Your task to perform on an android device: Open Google Maps Image 0: 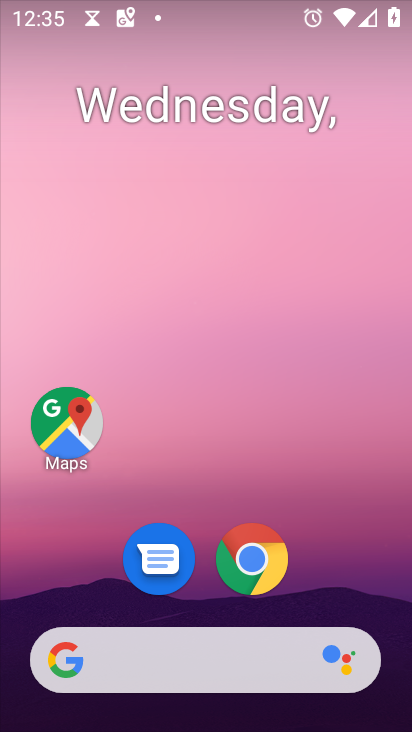
Step 0: drag from (352, 607) to (338, 11)
Your task to perform on an android device: Open Google Maps Image 1: 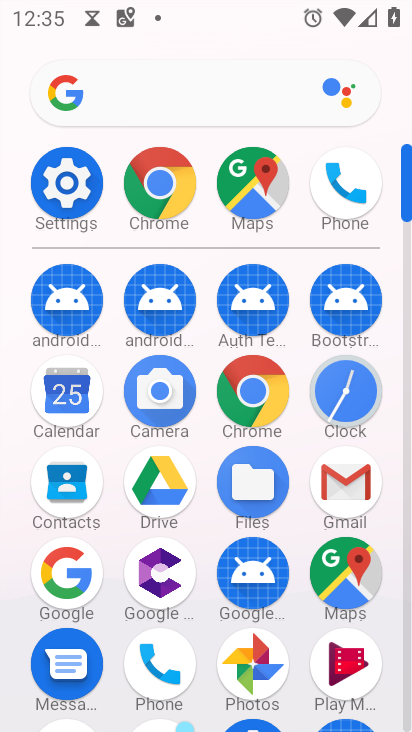
Step 1: click (64, 573)
Your task to perform on an android device: Open Google Maps Image 2: 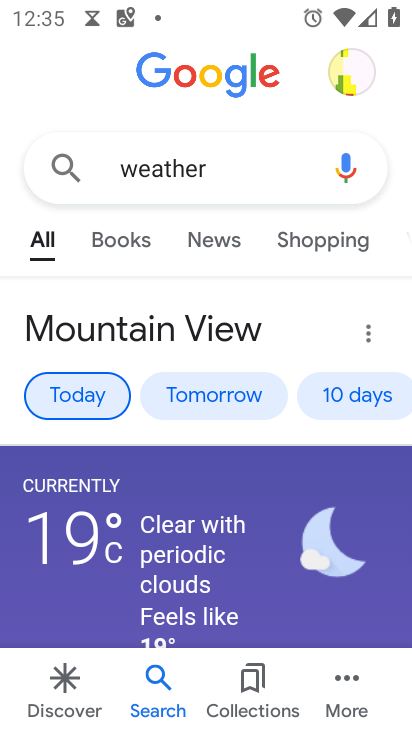
Step 2: drag from (263, 559) to (301, 225)
Your task to perform on an android device: Open Google Maps Image 3: 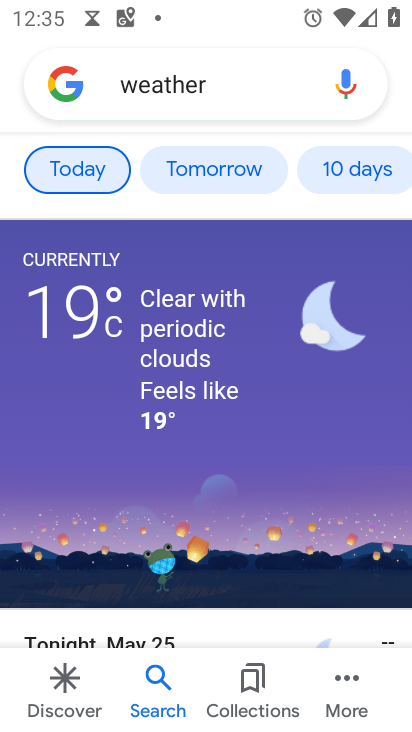
Step 3: drag from (230, 306) to (253, 692)
Your task to perform on an android device: Open Google Maps Image 4: 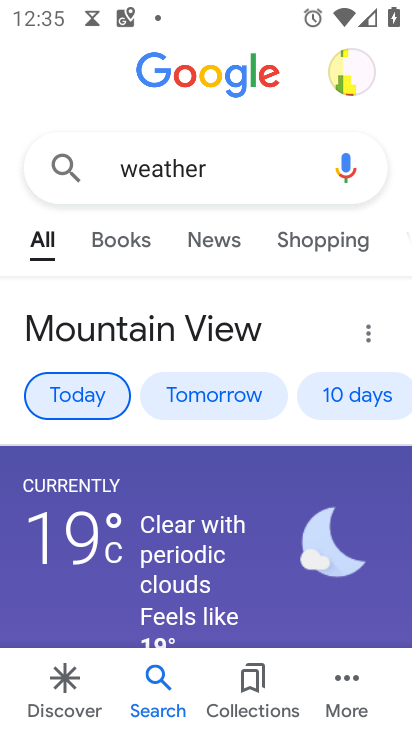
Step 4: press home button
Your task to perform on an android device: Open Google Maps Image 5: 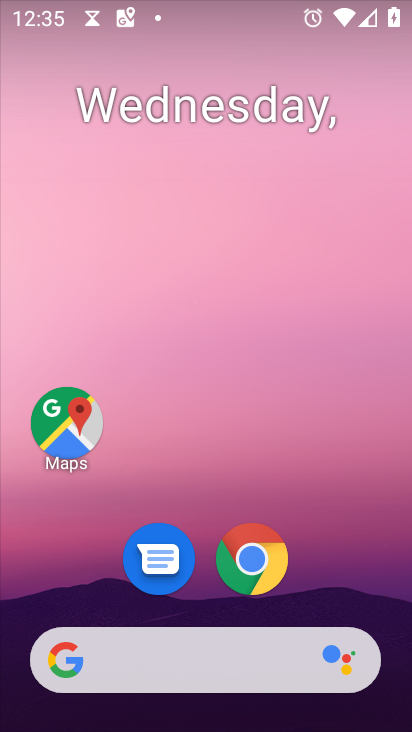
Step 5: drag from (390, 532) to (385, 10)
Your task to perform on an android device: Open Google Maps Image 6: 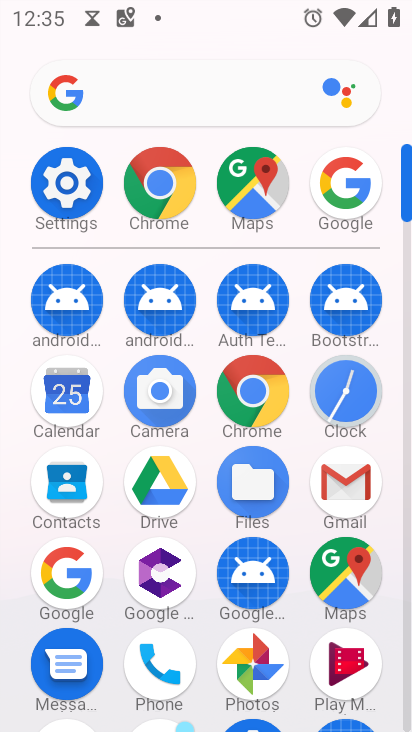
Step 6: click (249, 174)
Your task to perform on an android device: Open Google Maps Image 7: 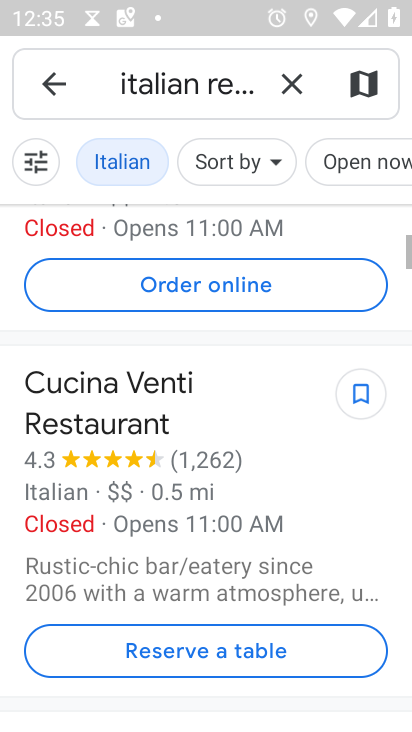
Step 7: drag from (279, 298) to (304, 599)
Your task to perform on an android device: Open Google Maps Image 8: 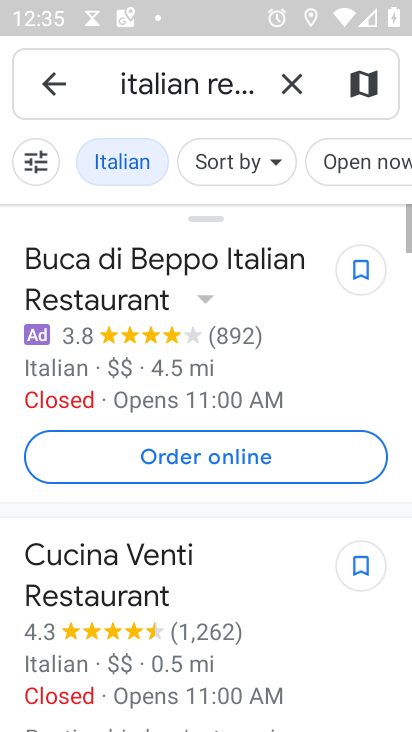
Step 8: click (289, 81)
Your task to perform on an android device: Open Google Maps Image 9: 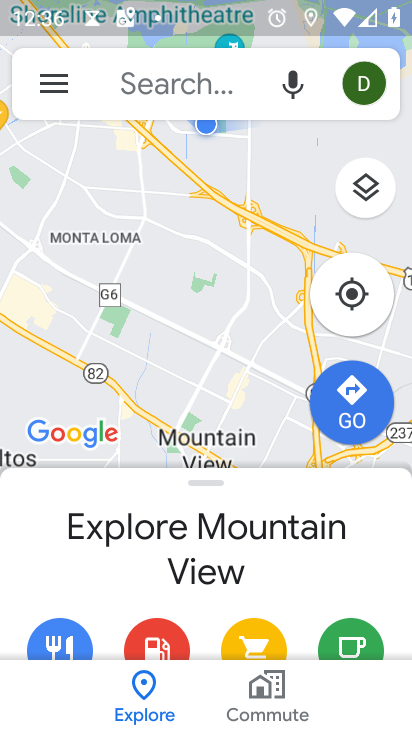
Step 9: click (61, 94)
Your task to perform on an android device: Open Google Maps Image 10: 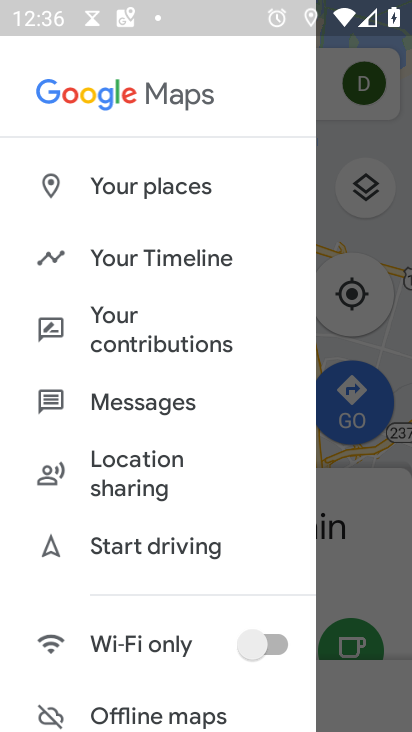
Step 10: task complete